Your task to perform on an android device: Search for Mexican restaurants on Maps Image 0: 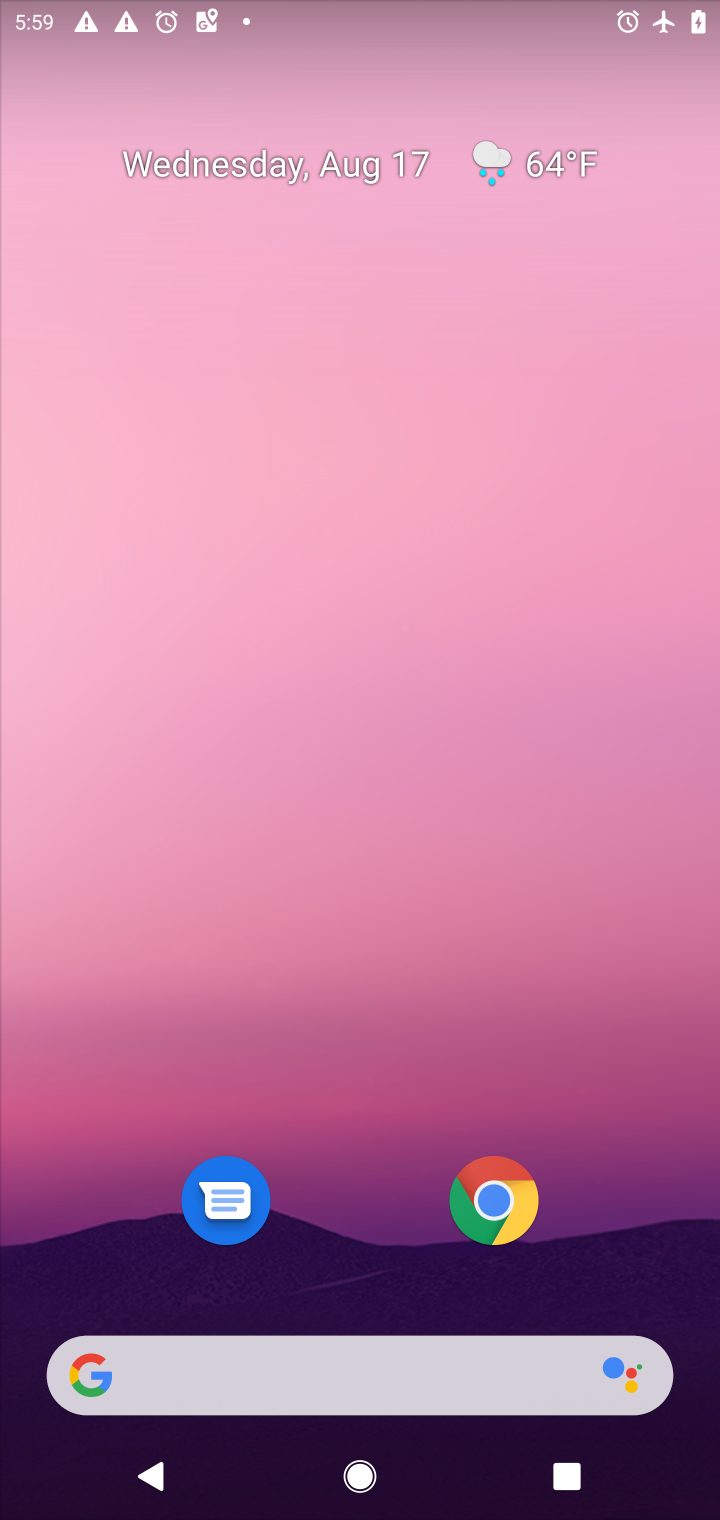
Step 0: drag from (332, 1311) to (332, 217)
Your task to perform on an android device: Search for Mexican restaurants on Maps Image 1: 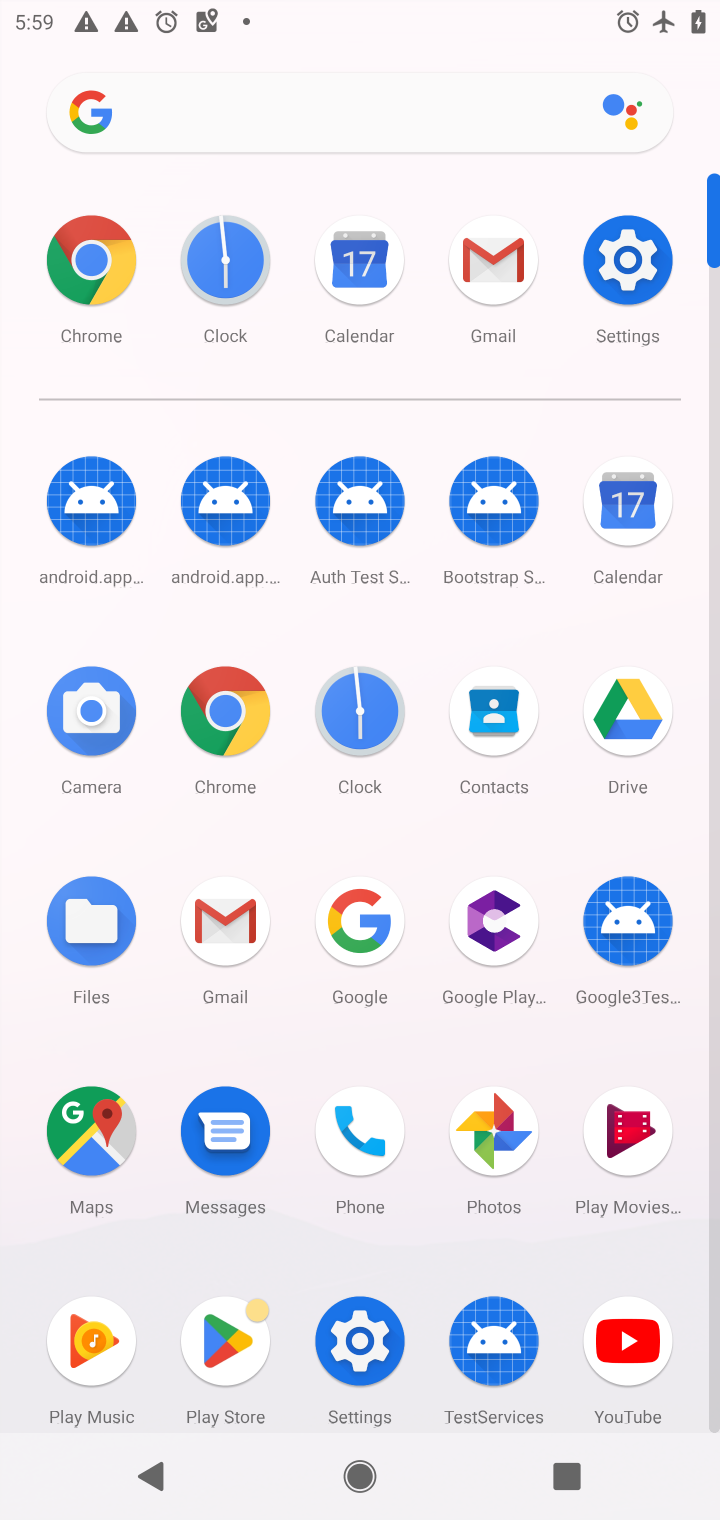
Step 1: click (100, 1132)
Your task to perform on an android device: Search for Mexican restaurants on Maps Image 2: 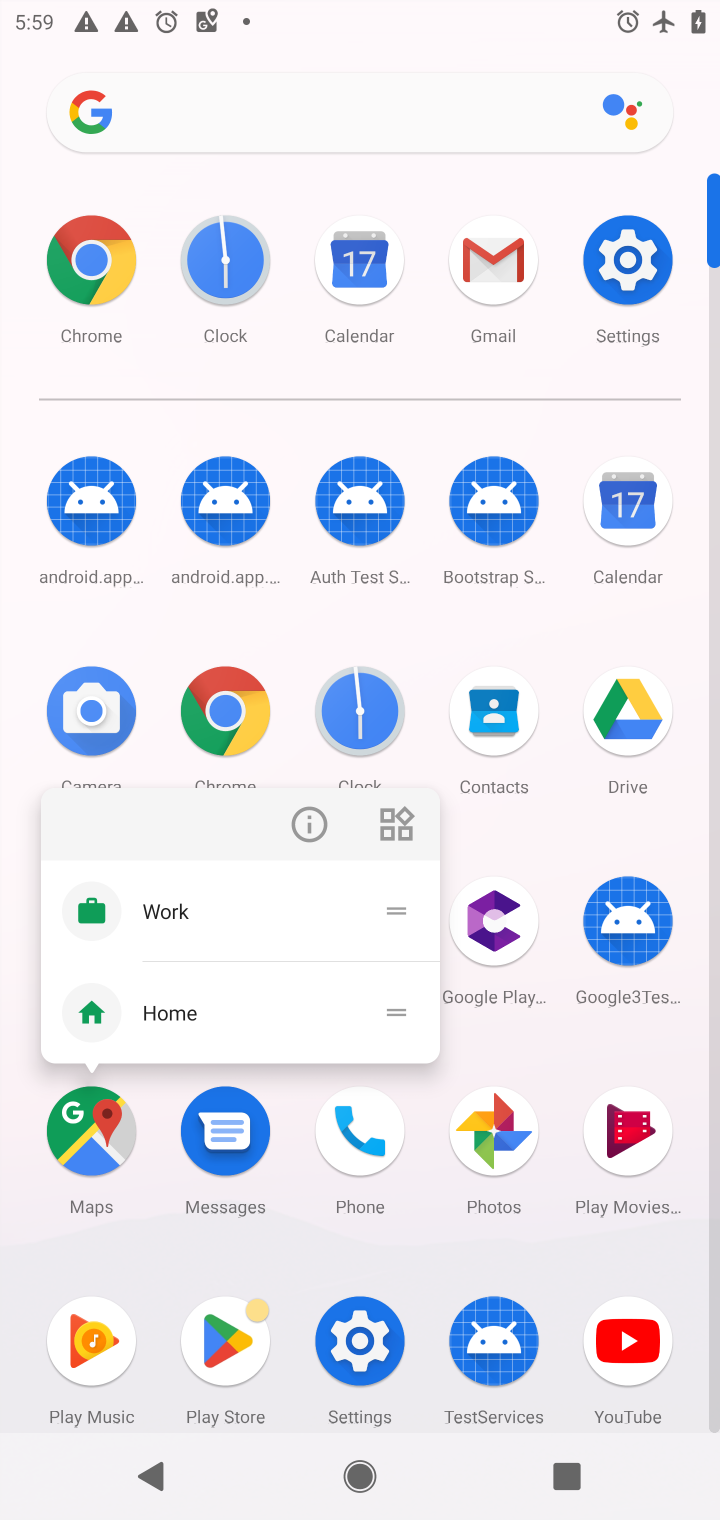
Step 2: click (96, 1136)
Your task to perform on an android device: Search for Mexican restaurants on Maps Image 3: 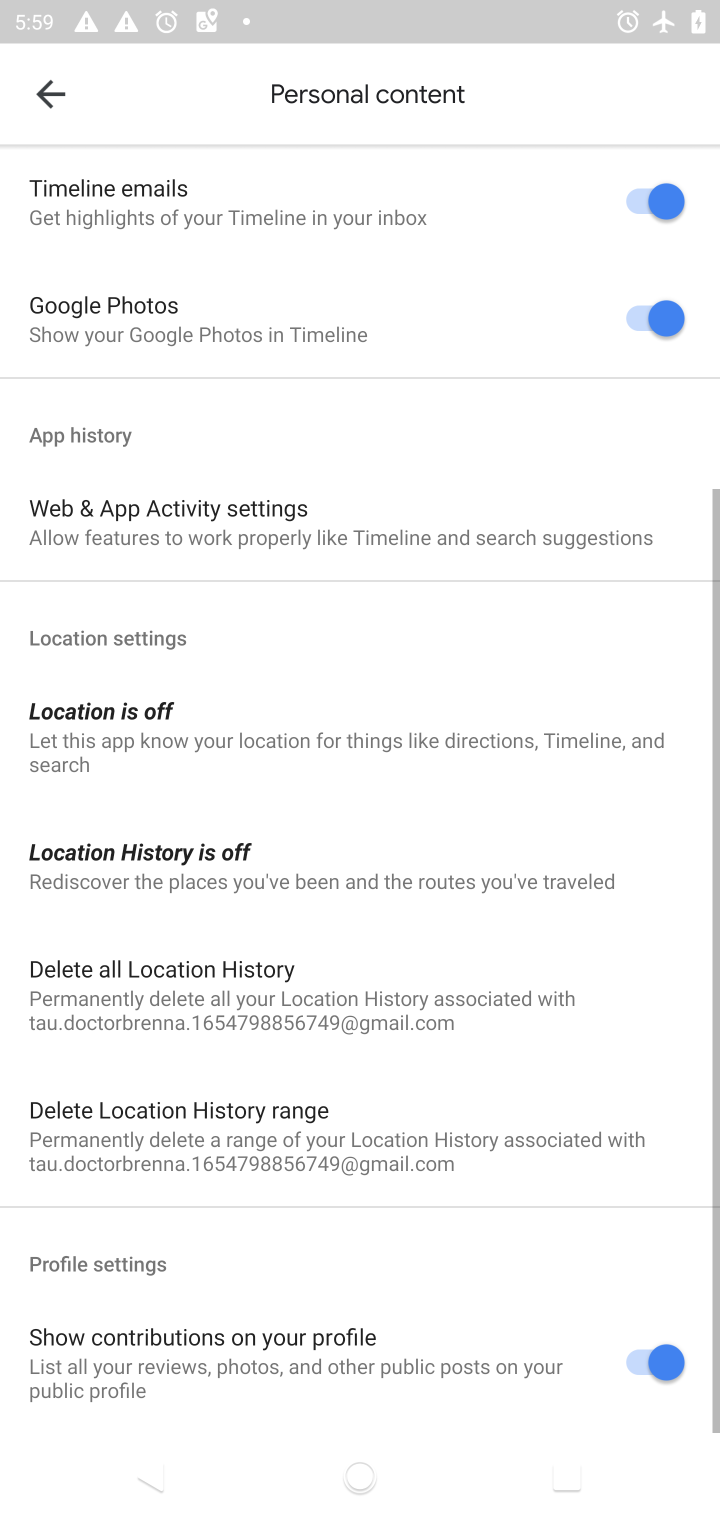
Step 3: click (51, 79)
Your task to perform on an android device: Search for Mexican restaurants on Maps Image 4: 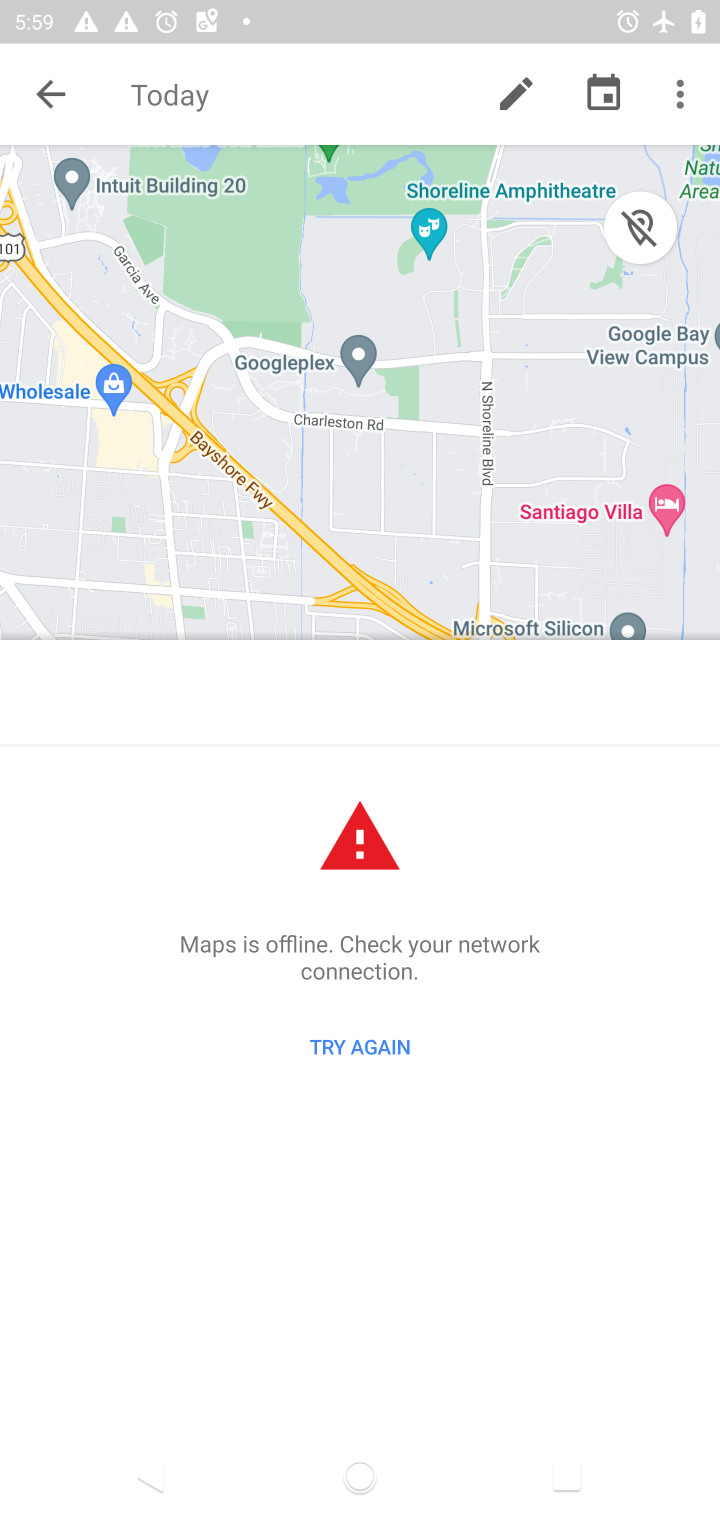
Step 4: click (42, 81)
Your task to perform on an android device: Search for Mexican restaurants on Maps Image 5: 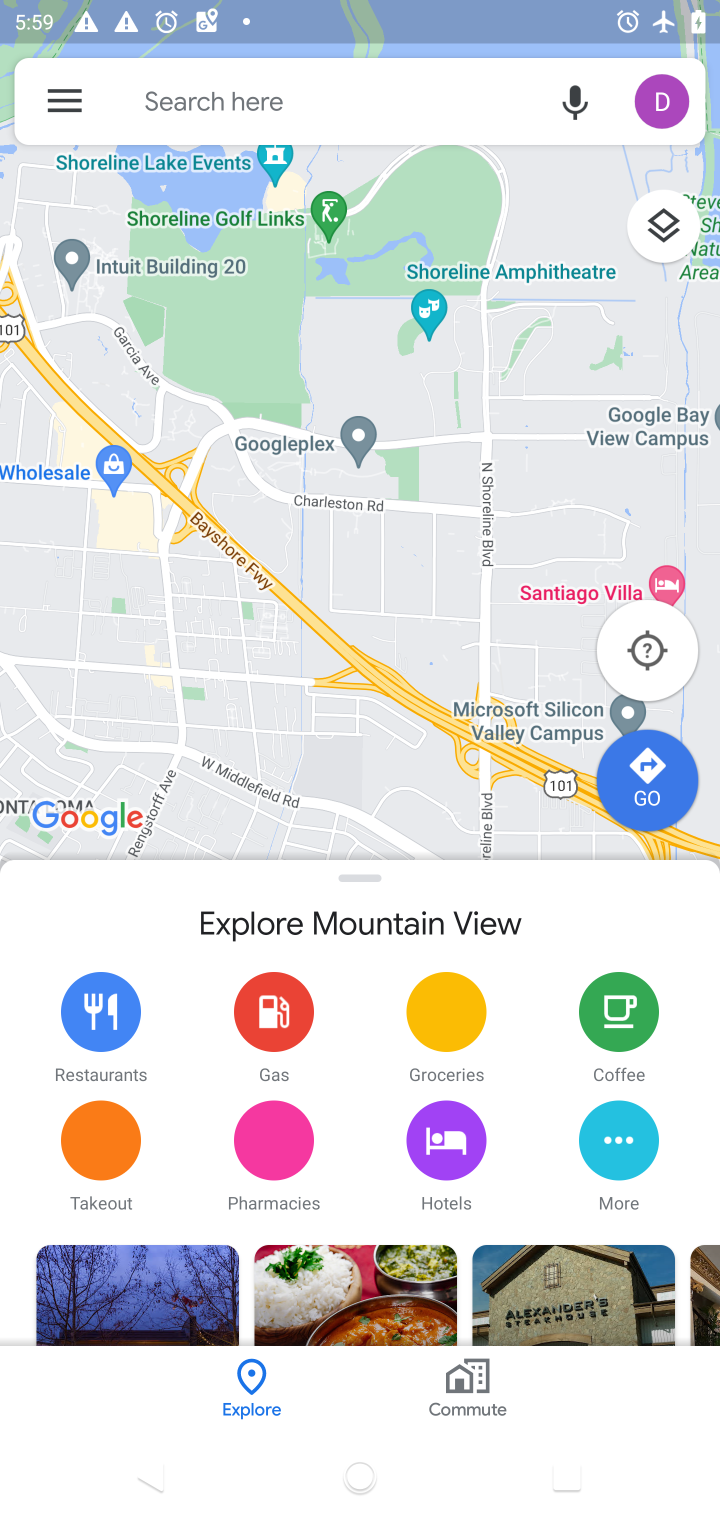
Step 5: click (310, 107)
Your task to perform on an android device: Search for Mexican restaurants on Maps Image 6: 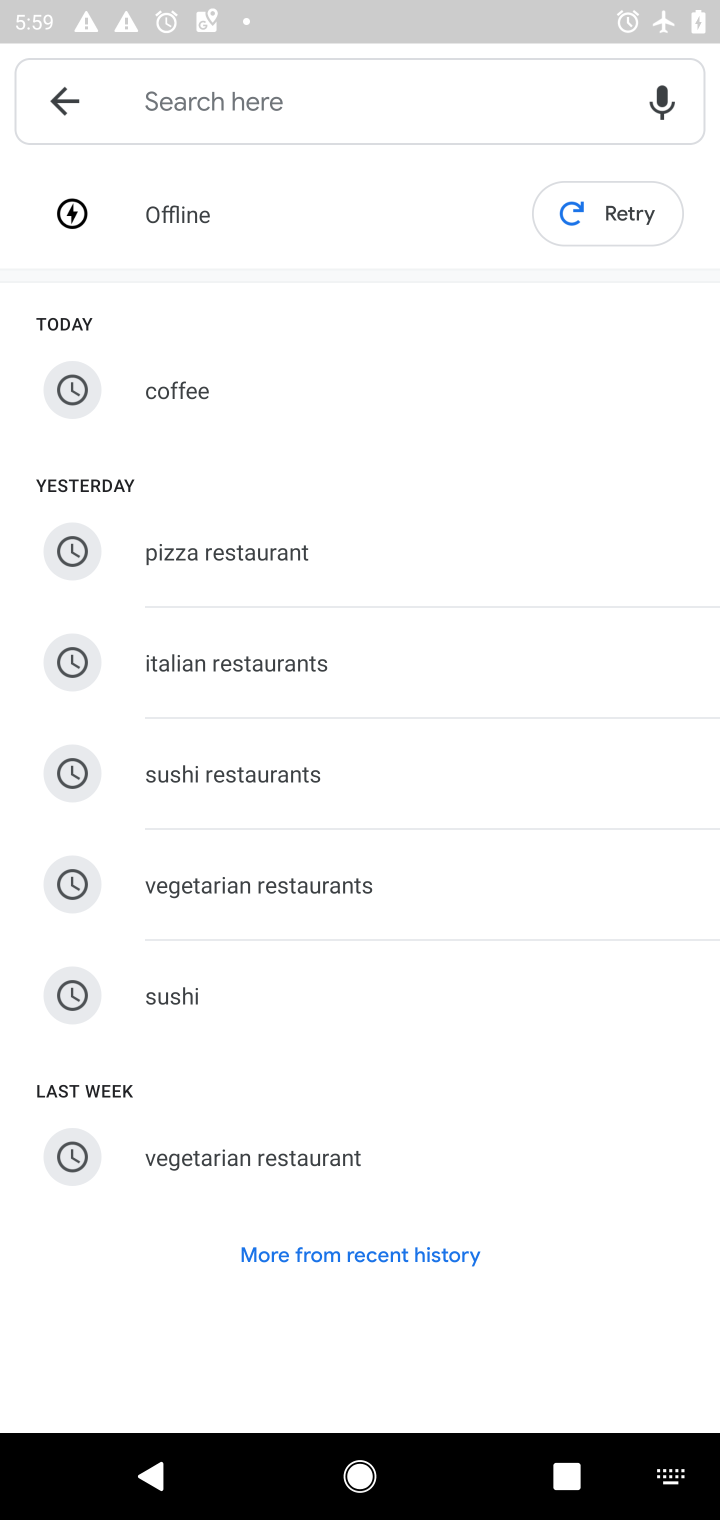
Step 6: type "Mexican restaurants"
Your task to perform on an android device: Search for Mexican restaurants on Maps Image 7: 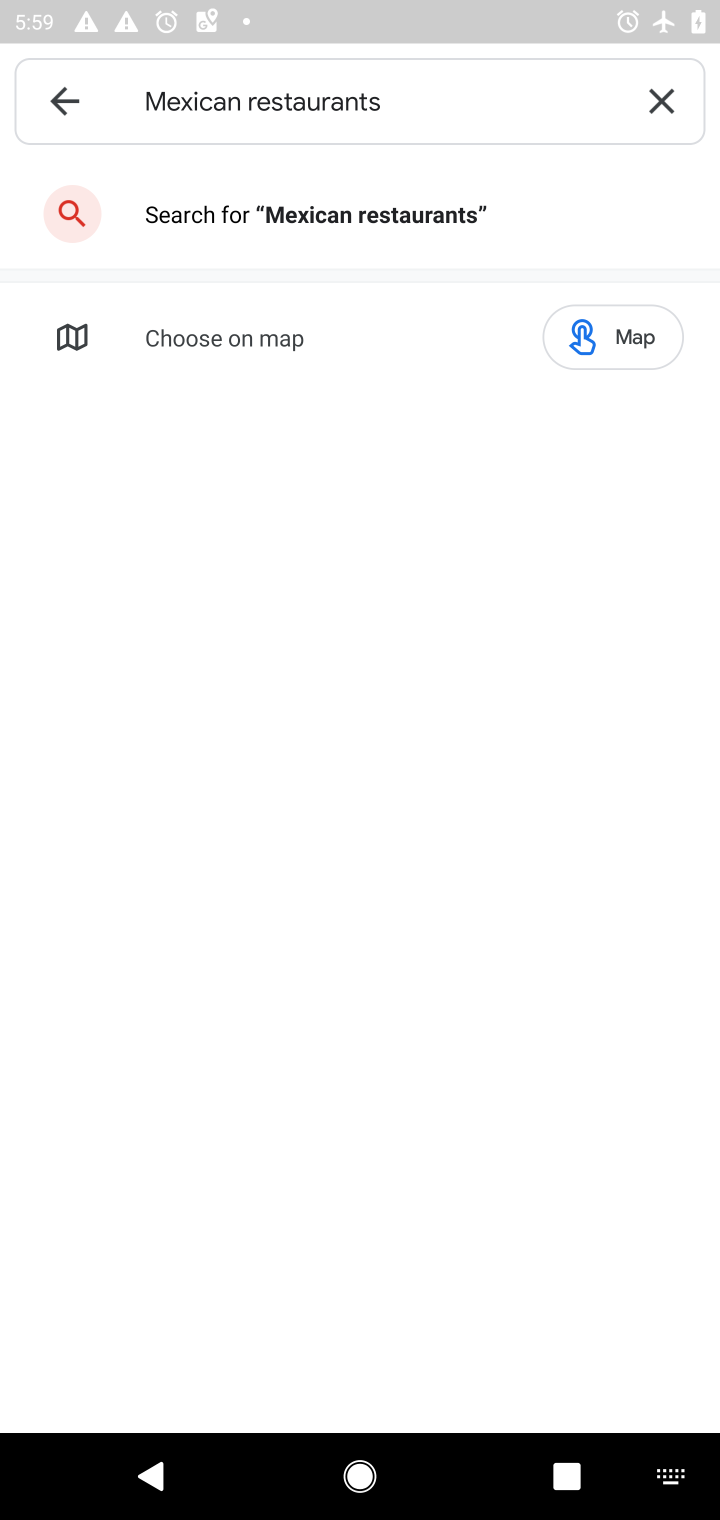
Step 7: click (340, 209)
Your task to perform on an android device: Search for Mexican restaurants on Maps Image 8: 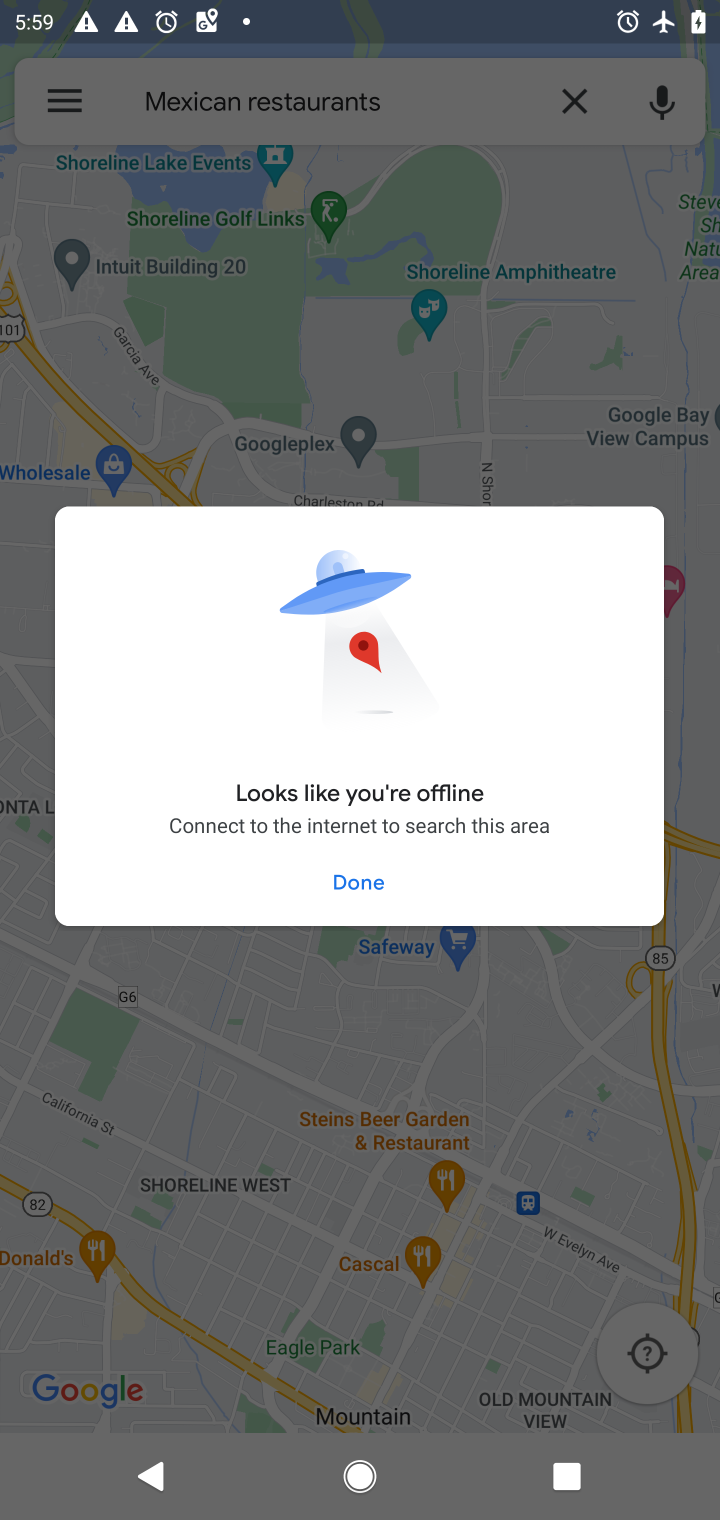
Step 8: task complete